Your task to perform on an android device: turn off translation in the chrome app Image 0: 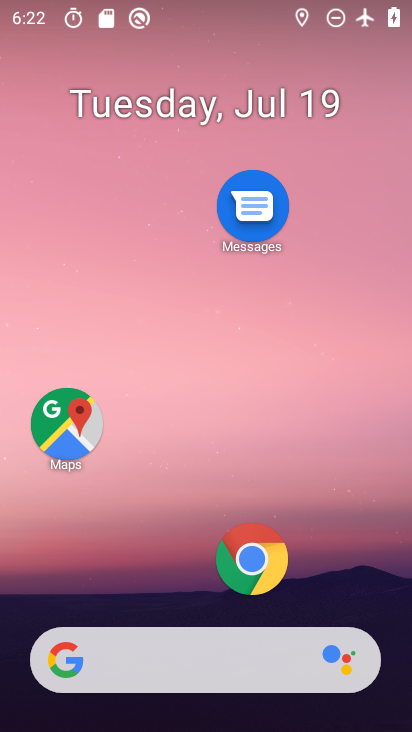
Step 0: click (241, 587)
Your task to perform on an android device: turn off translation in the chrome app Image 1: 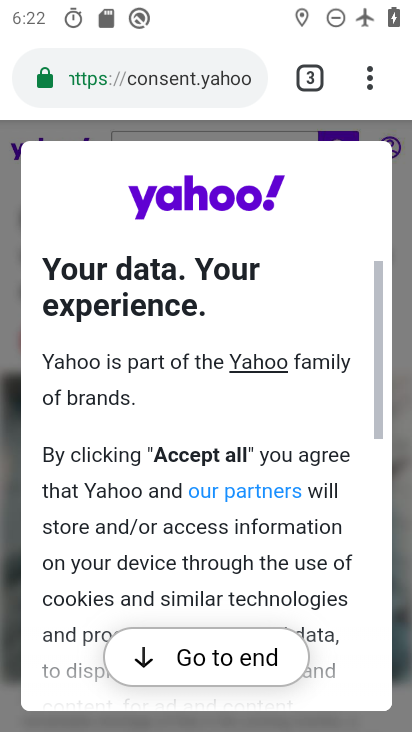
Step 1: drag from (366, 70) to (87, 607)
Your task to perform on an android device: turn off translation in the chrome app Image 2: 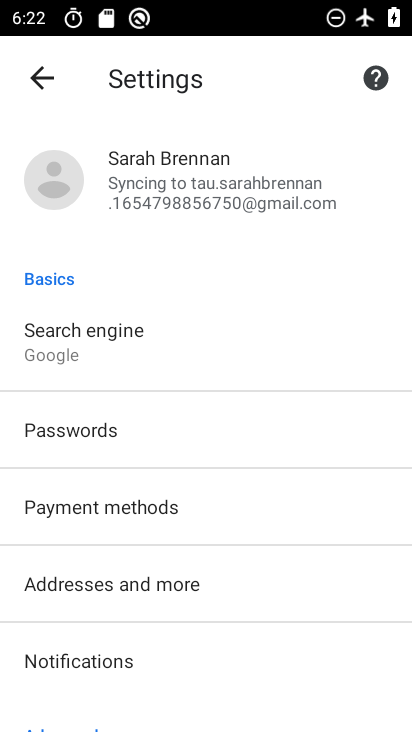
Step 2: drag from (102, 605) to (199, 99)
Your task to perform on an android device: turn off translation in the chrome app Image 3: 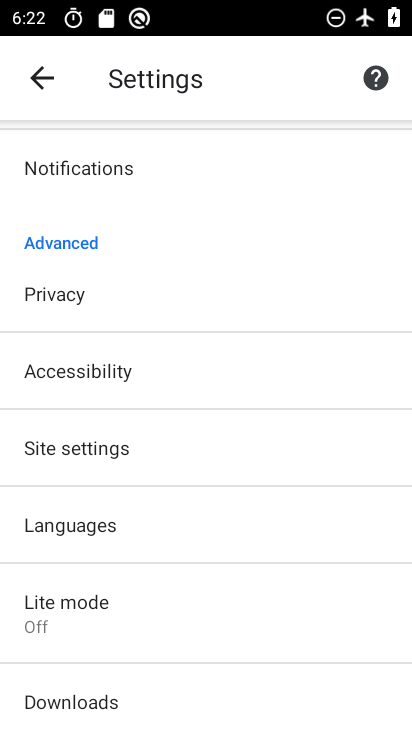
Step 3: click (90, 529)
Your task to perform on an android device: turn off translation in the chrome app Image 4: 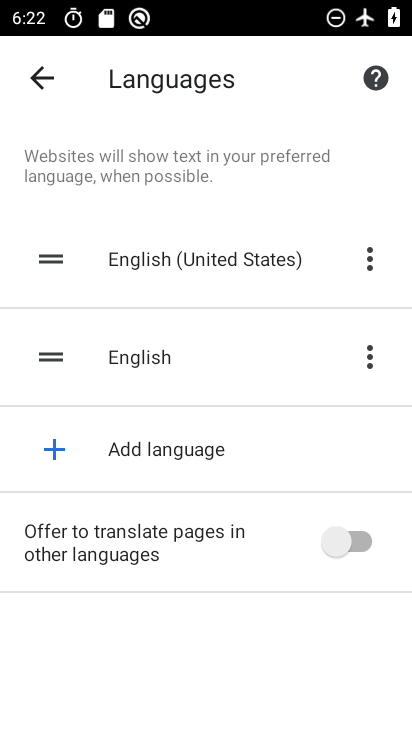
Step 4: task complete